Your task to perform on an android device: Open calendar and show me the fourth week of next month Image 0: 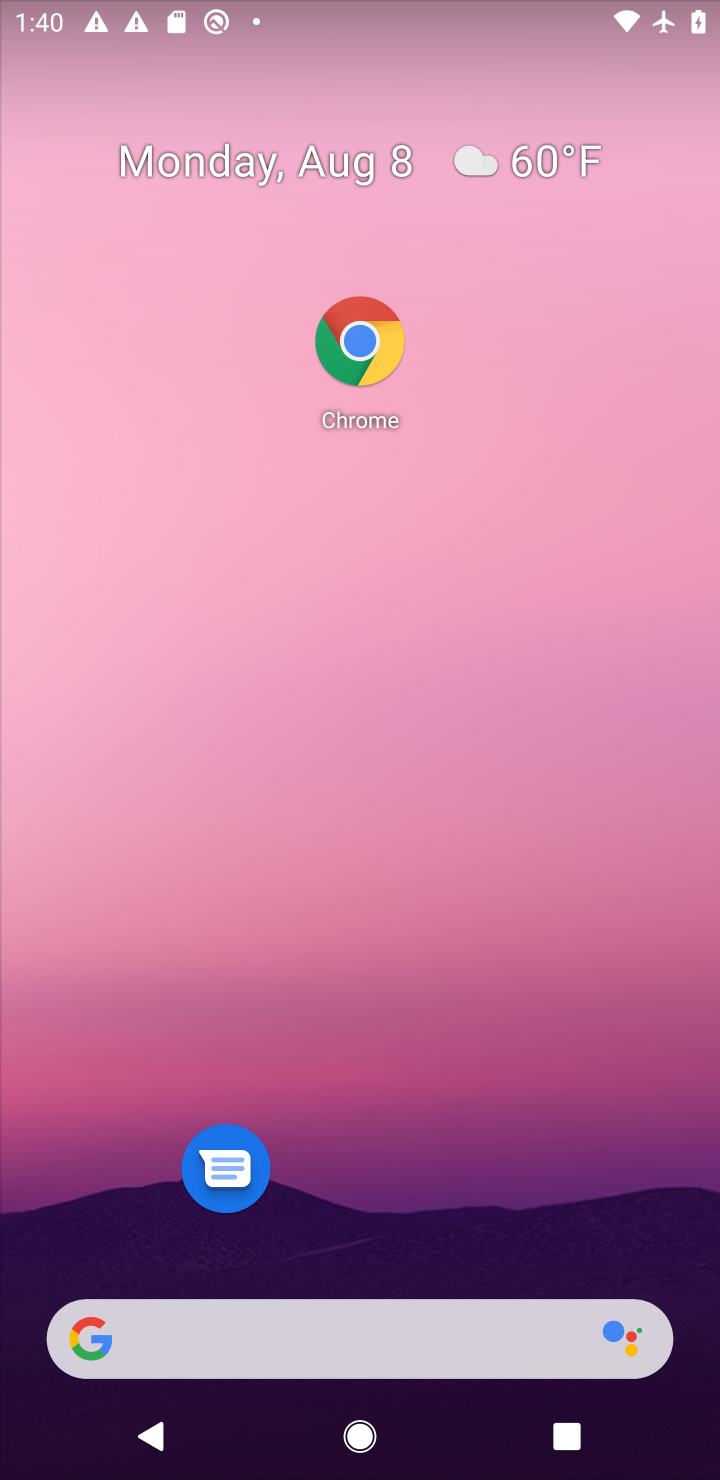
Step 0: drag from (365, 1260) to (434, 52)
Your task to perform on an android device: Open calendar and show me the fourth week of next month Image 1: 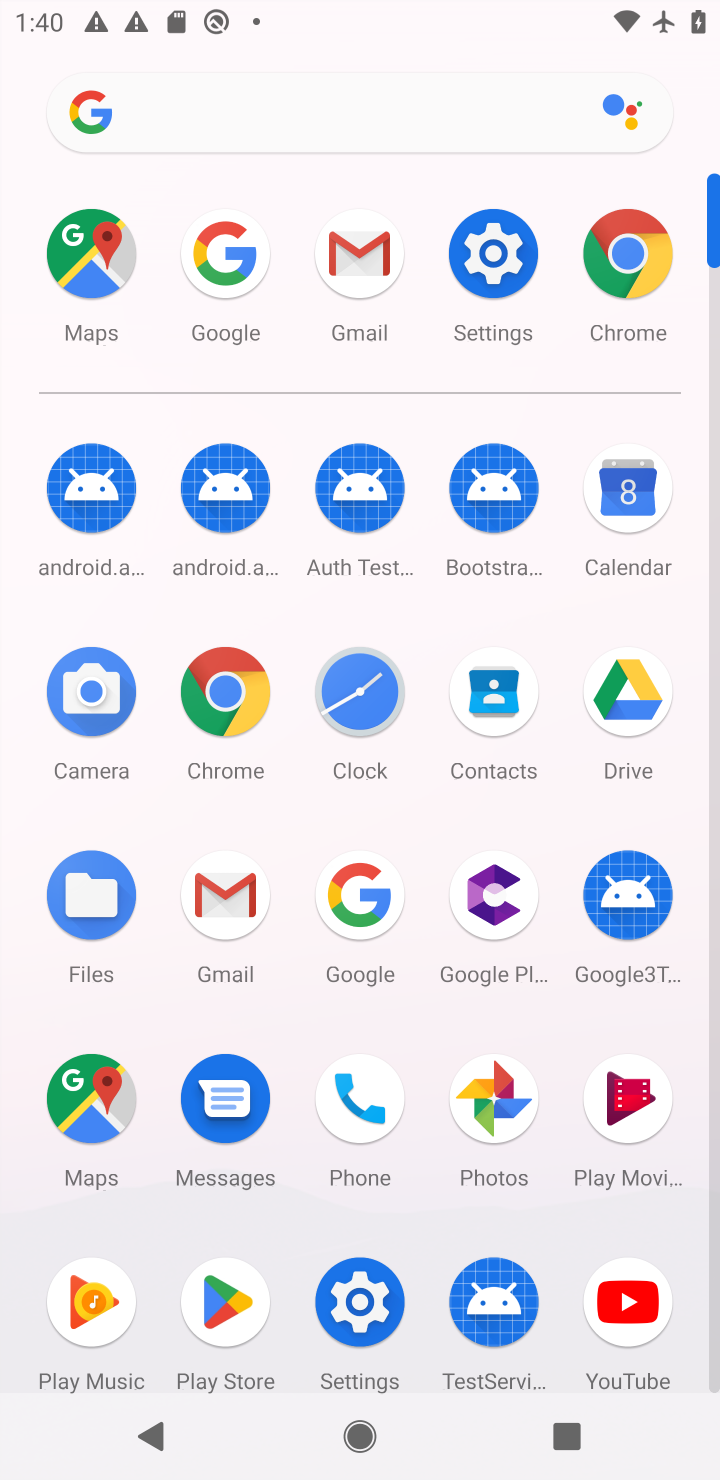
Step 1: click (625, 497)
Your task to perform on an android device: Open calendar and show me the fourth week of next month Image 2: 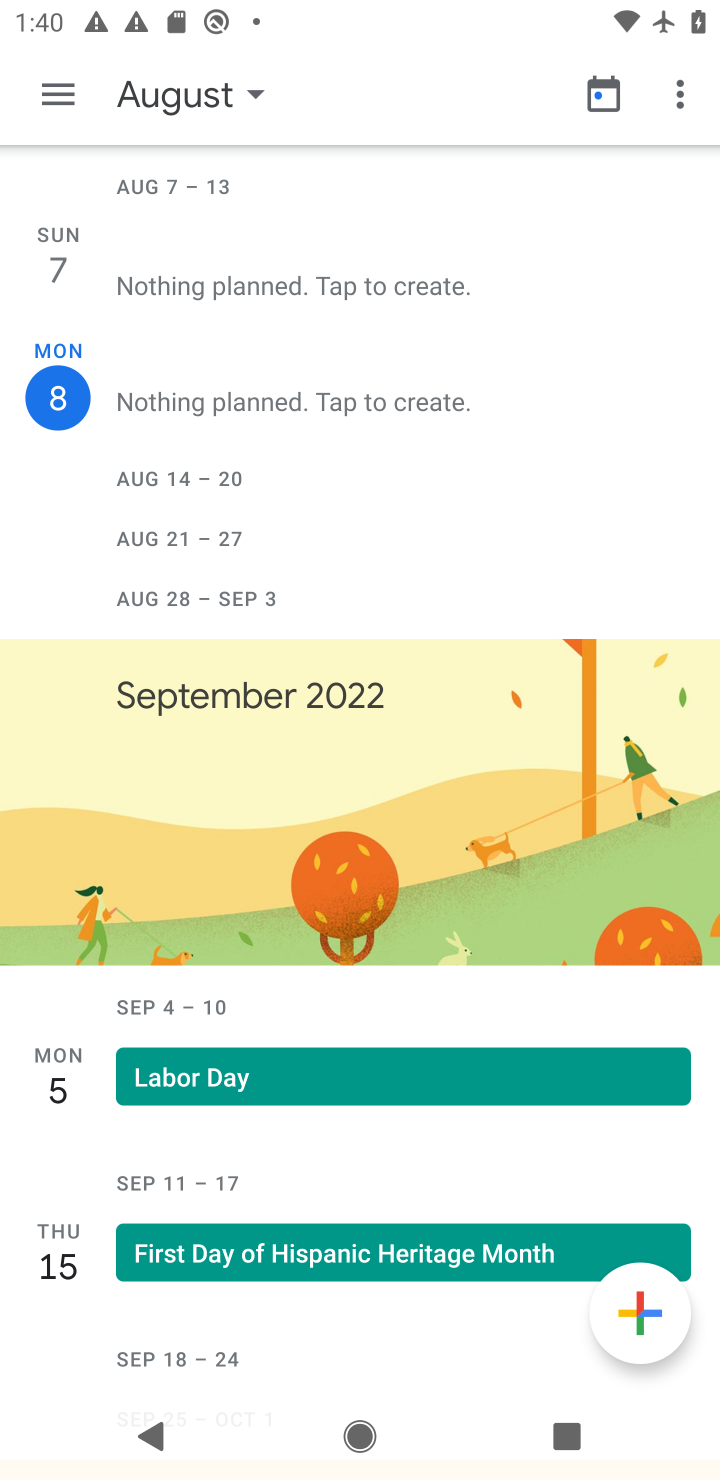
Step 2: task complete